Your task to perform on an android device: toggle improve location accuracy Image 0: 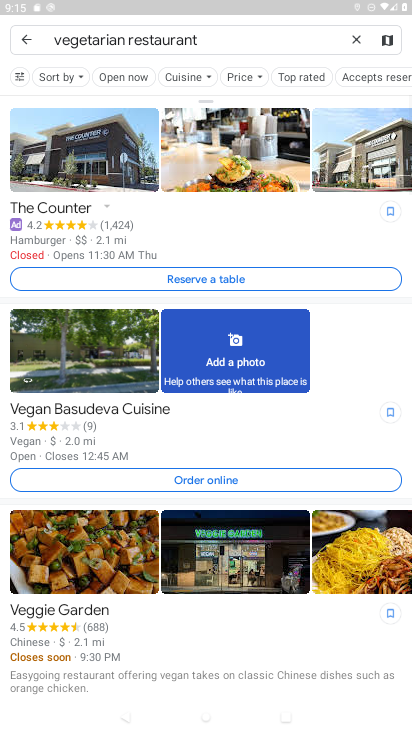
Step 0: press home button
Your task to perform on an android device: toggle improve location accuracy Image 1: 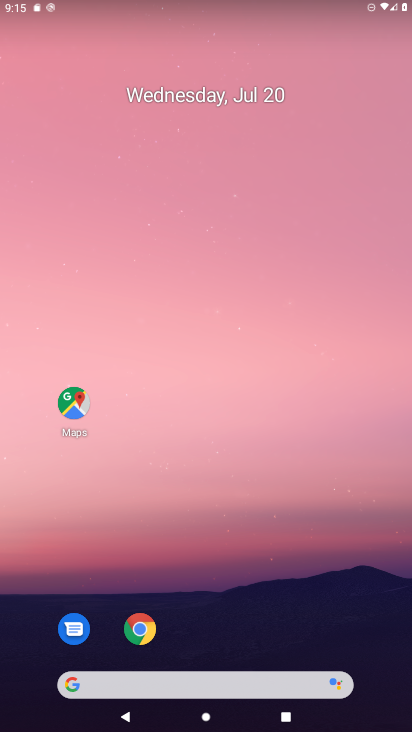
Step 1: drag from (269, 646) to (284, 108)
Your task to perform on an android device: toggle improve location accuracy Image 2: 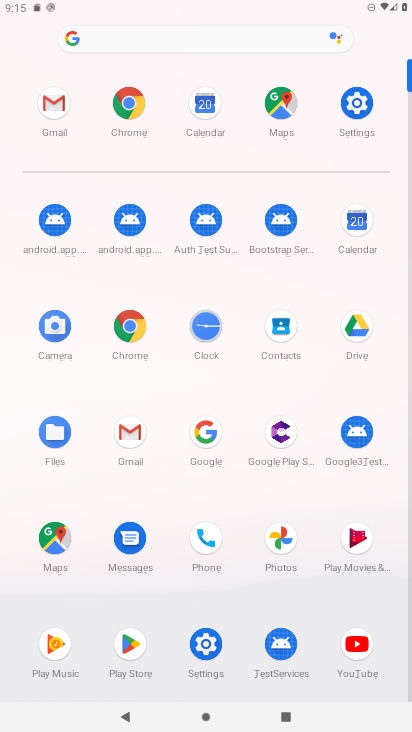
Step 2: click (206, 644)
Your task to perform on an android device: toggle improve location accuracy Image 3: 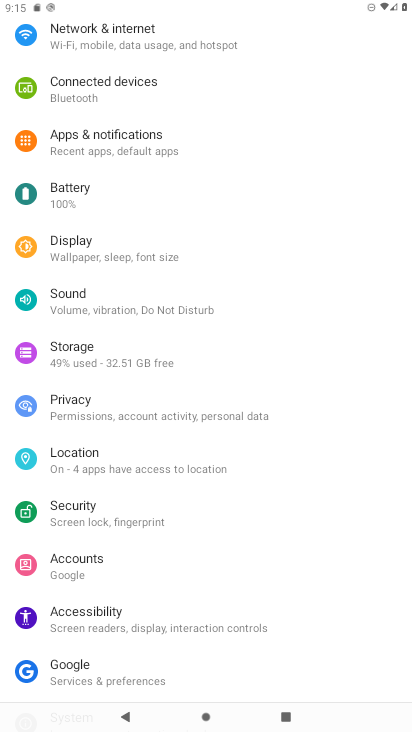
Step 3: click (87, 451)
Your task to perform on an android device: toggle improve location accuracy Image 4: 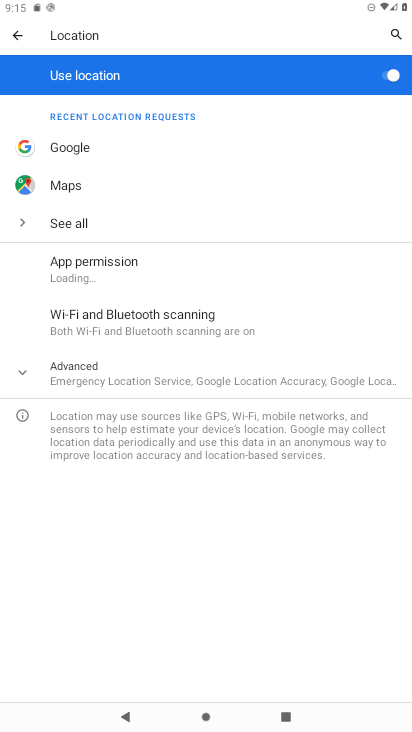
Step 4: click (26, 370)
Your task to perform on an android device: toggle improve location accuracy Image 5: 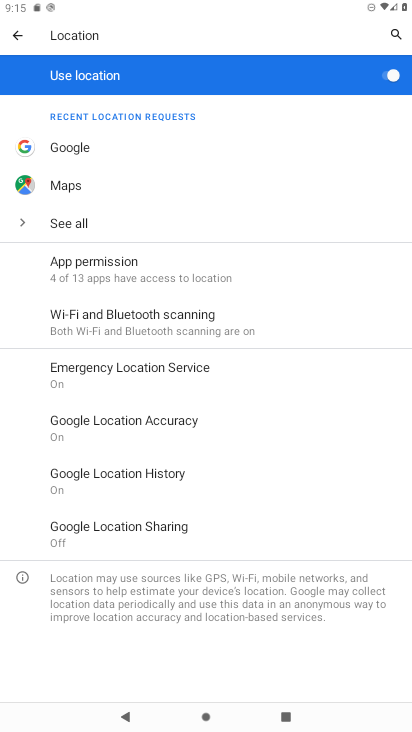
Step 5: click (108, 410)
Your task to perform on an android device: toggle improve location accuracy Image 6: 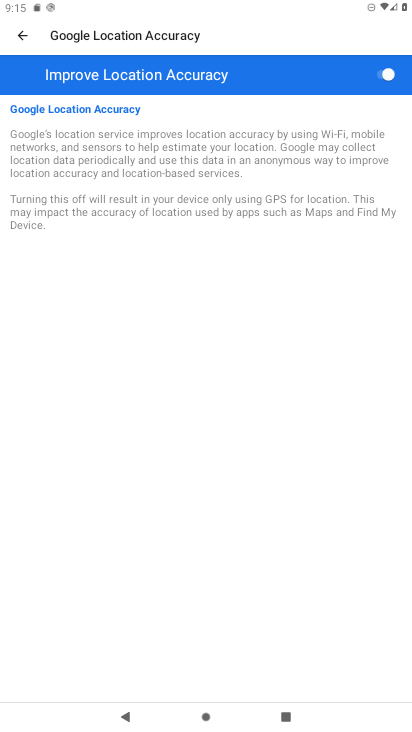
Step 6: click (380, 71)
Your task to perform on an android device: toggle improve location accuracy Image 7: 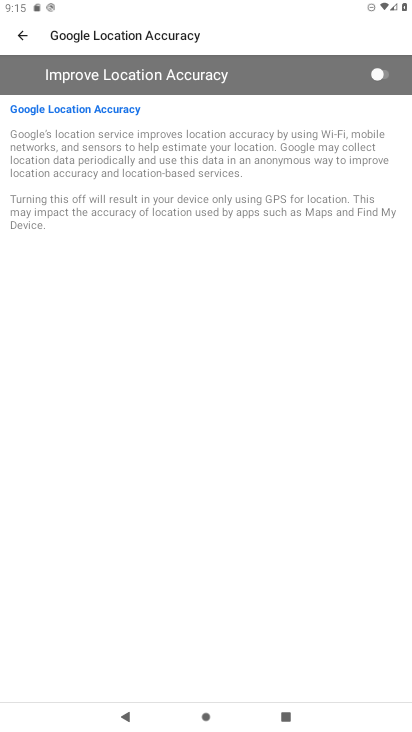
Step 7: task complete